Your task to perform on an android device: Search for sushi restaurants on Maps Image 0: 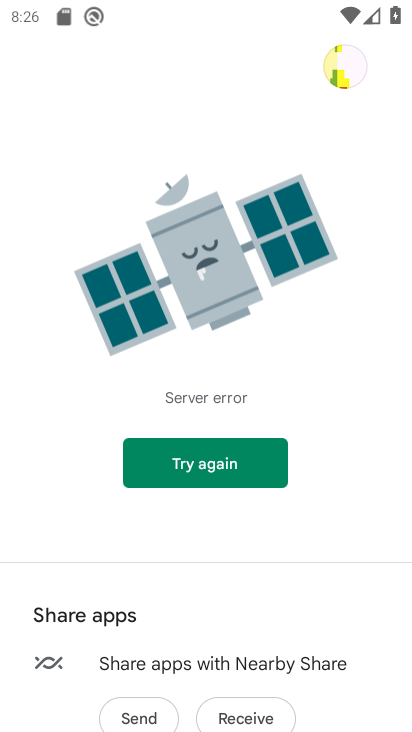
Step 0: type ""
Your task to perform on an android device: Search for sushi restaurants on Maps Image 1: 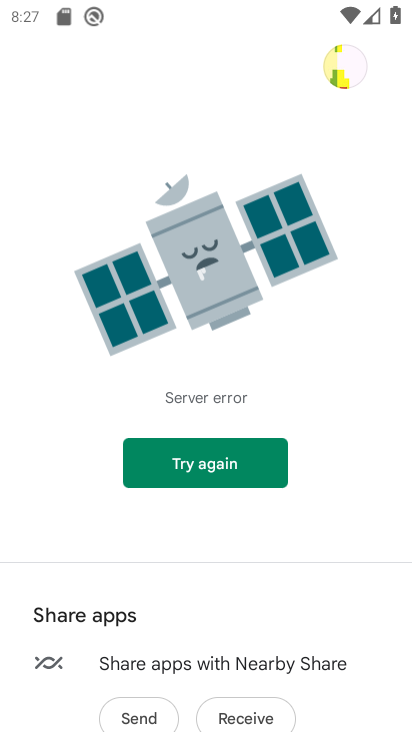
Step 1: press home button
Your task to perform on an android device: Search for sushi restaurants on Maps Image 2: 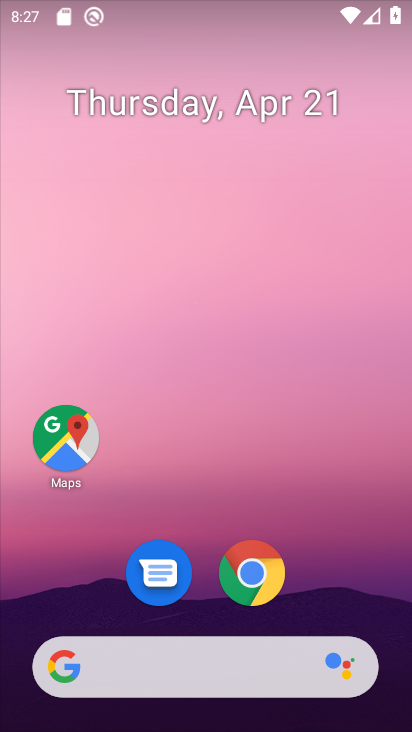
Step 2: click (68, 438)
Your task to perform on an android device: Search for sushi restaurants on Maps Image 3: 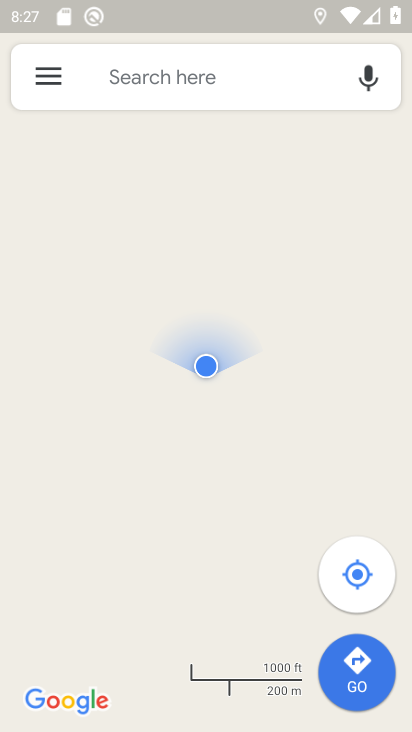
Step 3: click (266, 75)
Your task to perform on an android device: Search for sushi restaurants on Maps Image 4: 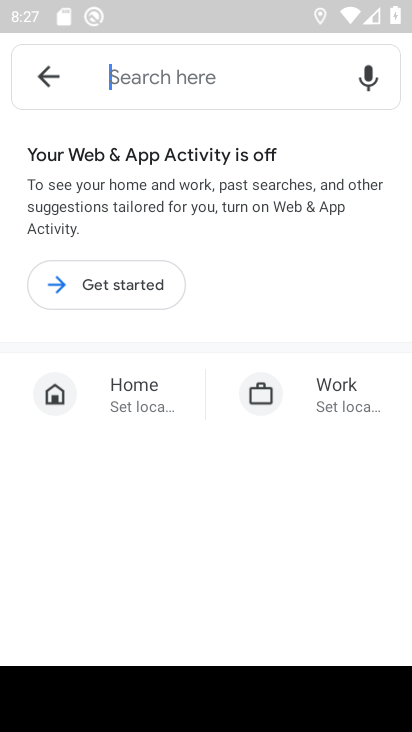
Step 4: click (266, 75)
Your task to perform on an android device: Search for sushi restaurants on Maps Image 5: 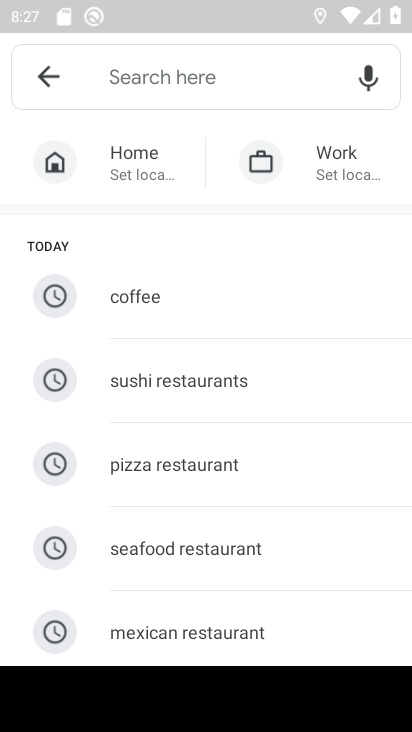
Step 5: type "sushi restaurants"
Your task to perform on an android device: Search for sushi restaurants on Maps Image 6: 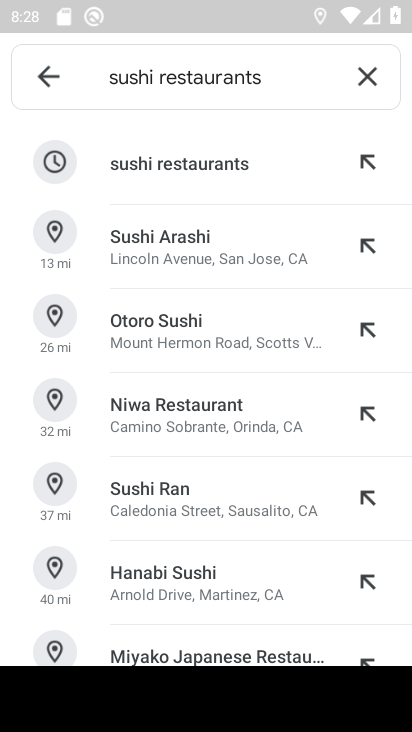
Step 6: click (220, 165)
Your task to perform on an android device: Search for sushi restaurants on Maps Image 7: 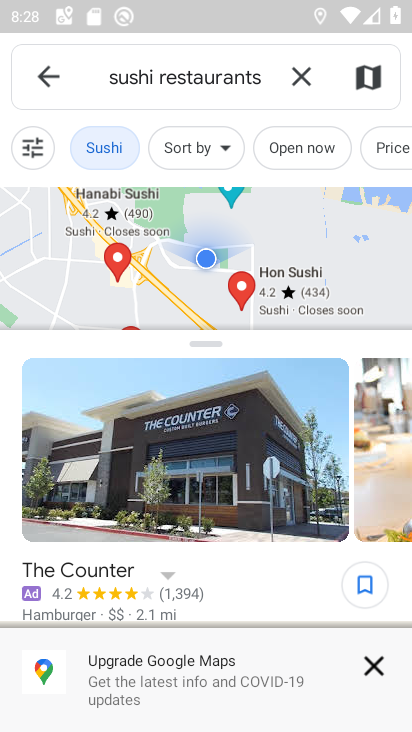
Step 7: click (376, 661)
Your task to perform on an android device: Search for sushi restaurants on Maps Image 8: 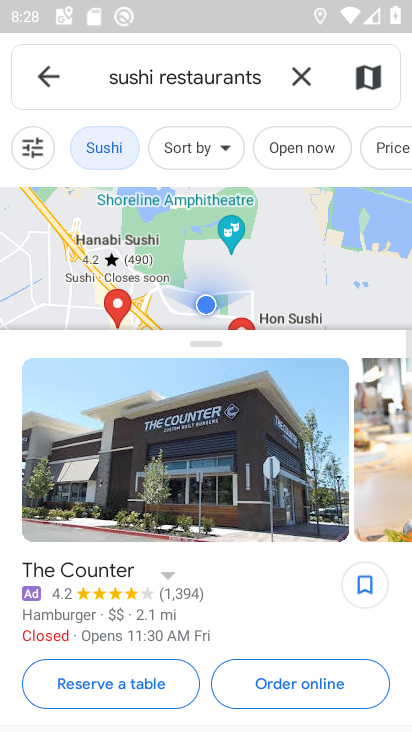
Step 8: task complete